Your task to perform on an android device: See recent photos Image 0: 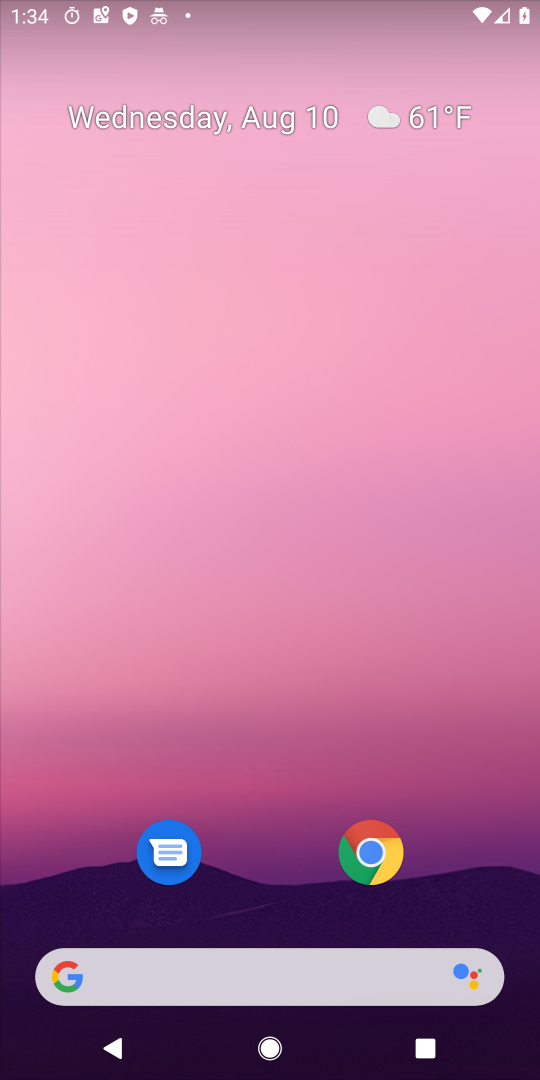
Step 0: drag from (276, 826) to (367, 77)
Your task to perform on an android device: See recent photos Image 1: 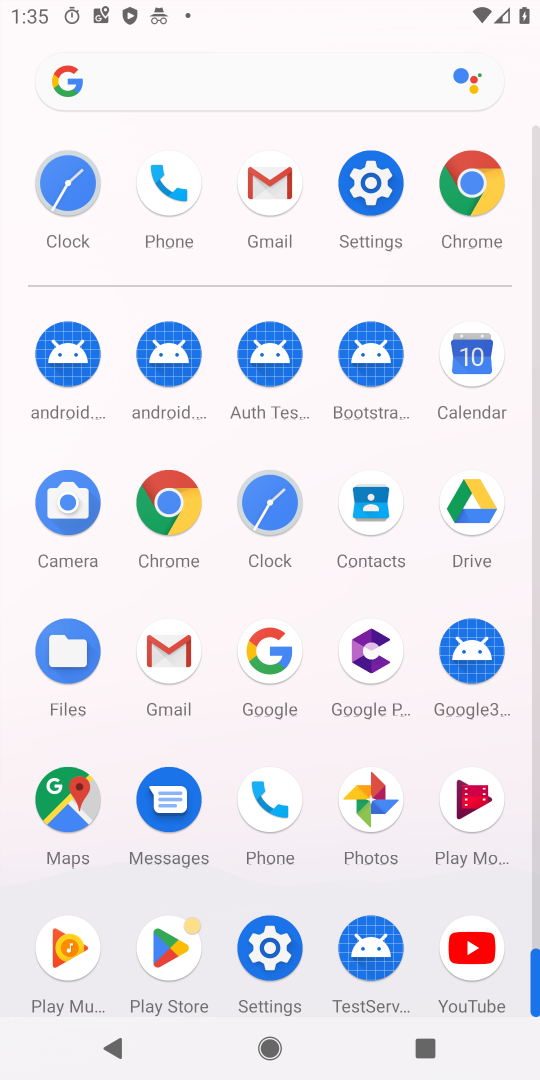
Step 1: click (388, 798)
Your task to perform on an android device: See recent photos Image 2: 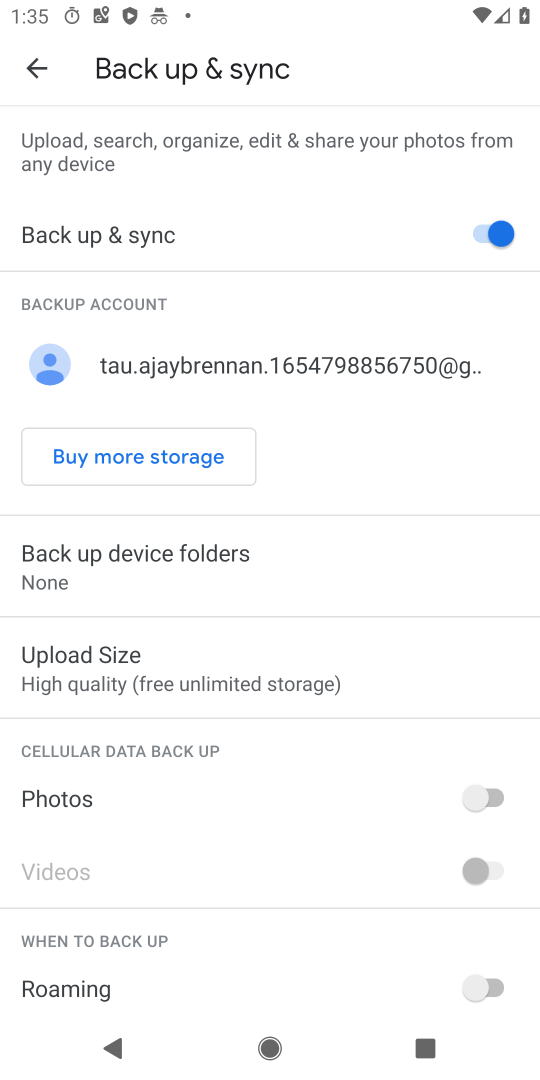
Step 2: click (40, 71)
Your task to perform on an android device: See recent photos Image 3: 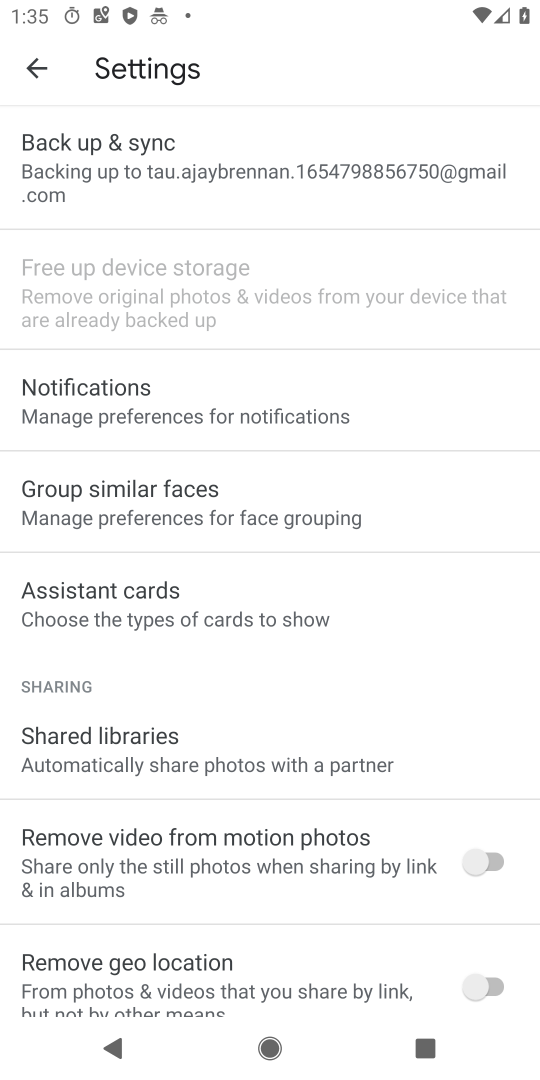
Step 3: click (41, 57)
Your task to perform on an android device: See recent photos Image 4: 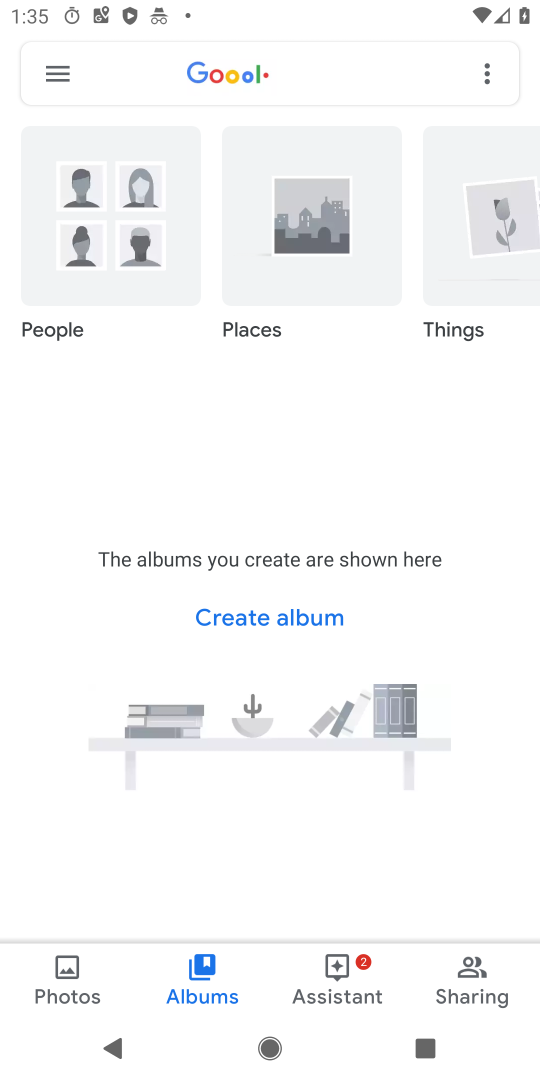
Step 4: click (65, 977)
Your task to perform on an android device: See recent photos Image 5: 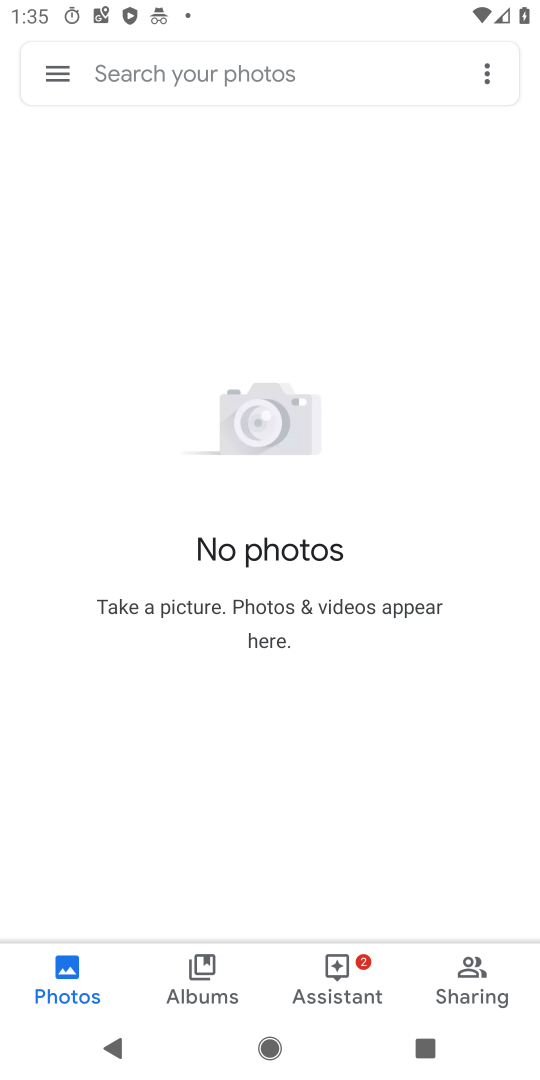
Step 5: task complete